Your task to perform on an android device: turn off wifi Image 0: 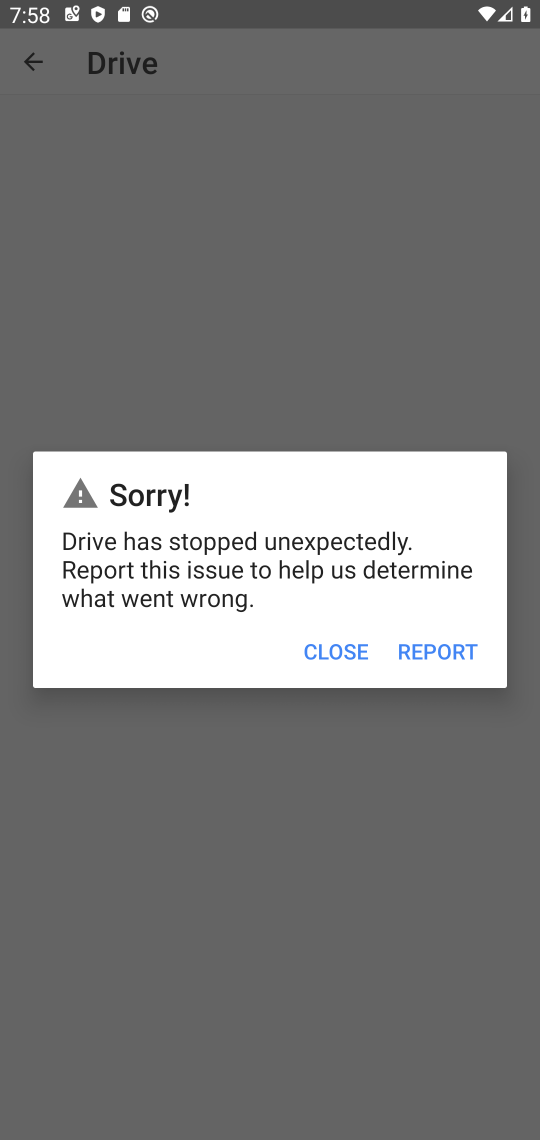
Step 0: press home button
Your task to perform on an android device: turn off wifi Image 1: 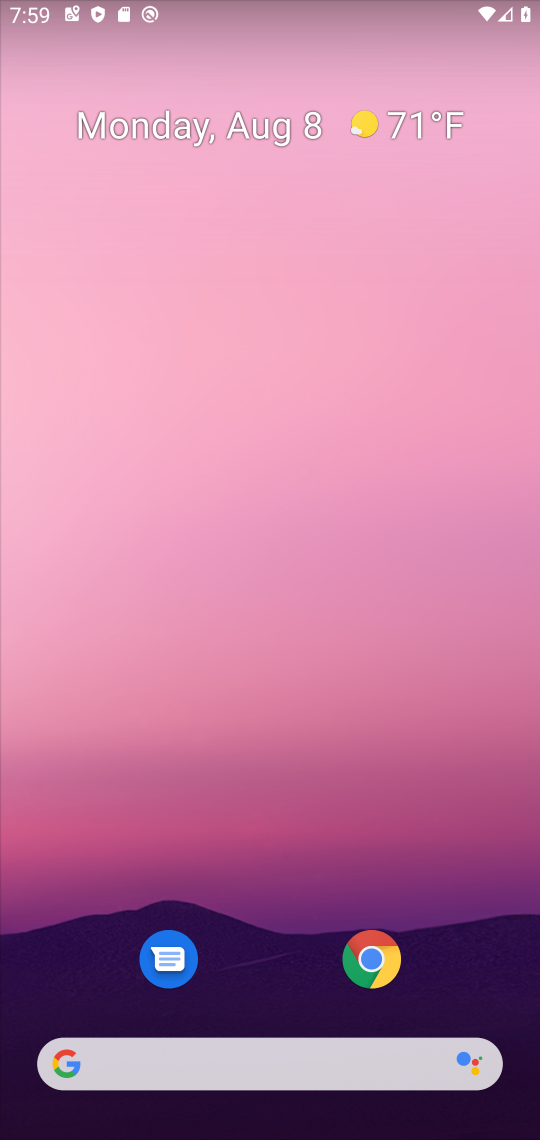
Step 1: drag from (229, 5) to (293, 917)
Your task to perform on an android device: turn off wifi Image 2: 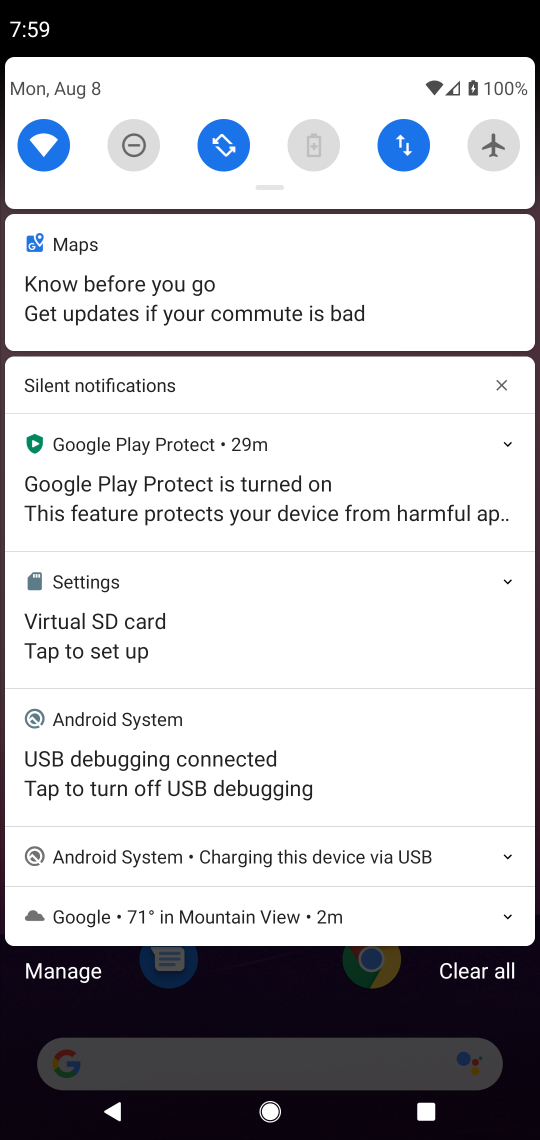
Step 2: click (44, 148)
Your task to perform on an android device: turn off wifi Image 3: 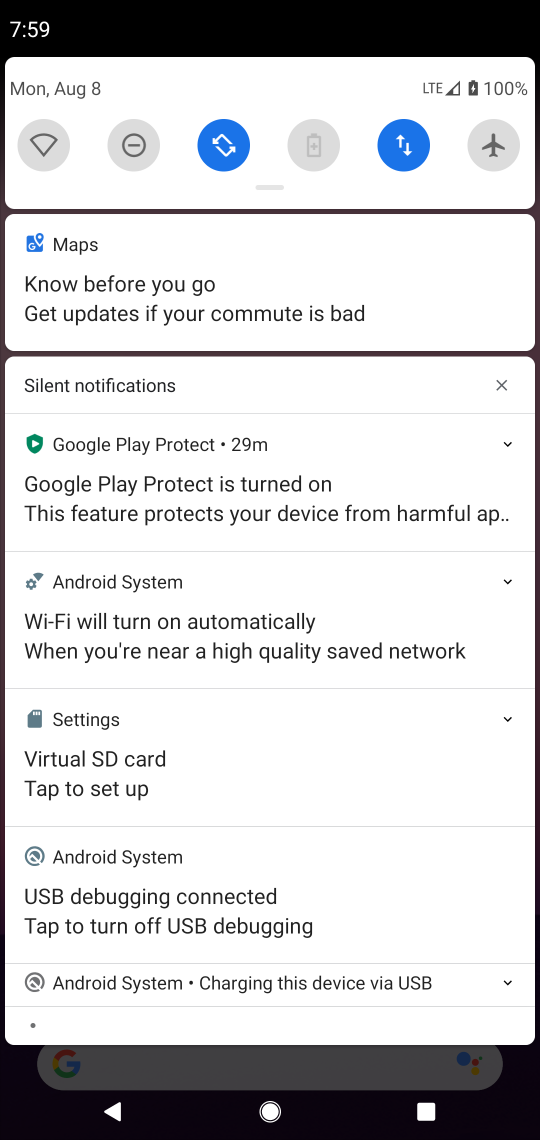
Step 3: task complete